Your task to perform on an android device: Open calendar and show me the second week of next month Image 0: 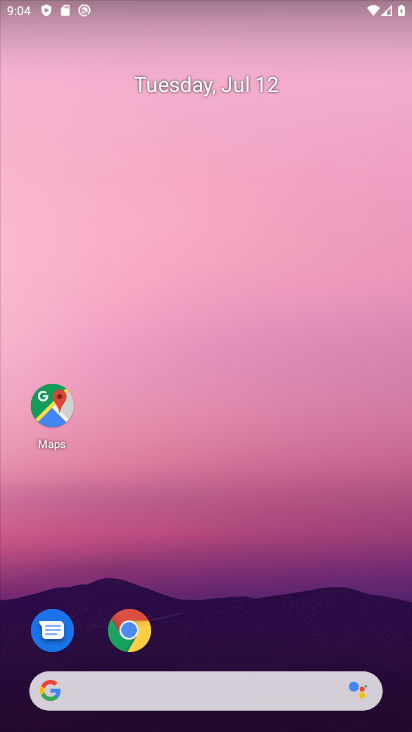
Step 0: drag from (253, 695) to (313, 201)
Your task to perform on an android device: Open calendar and show me the second week of next month Image 1: 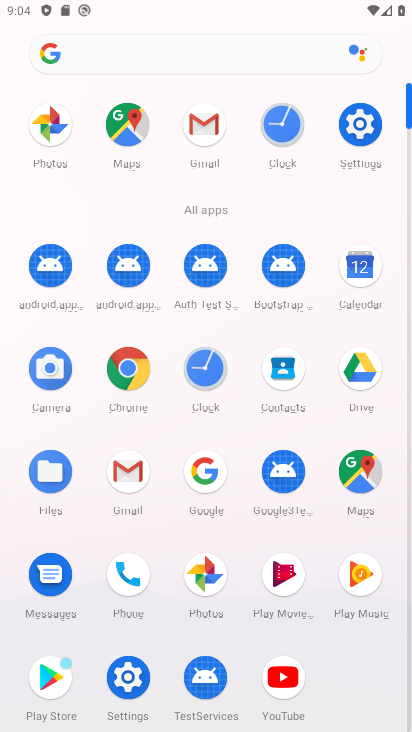
Step 1: click (357, 277)
Your task to perform on an android device: Open calendar and show me the second week of next month Image 2: 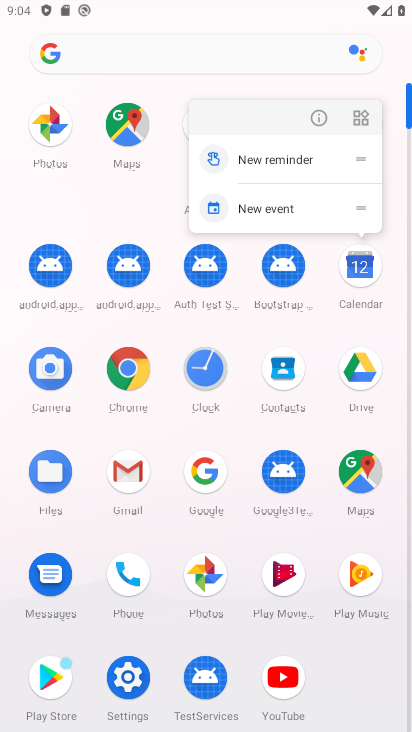
Step 2: click (357, 266)
Your task to perform on an android device: Open calendar and show me the second week of next month Image 3: 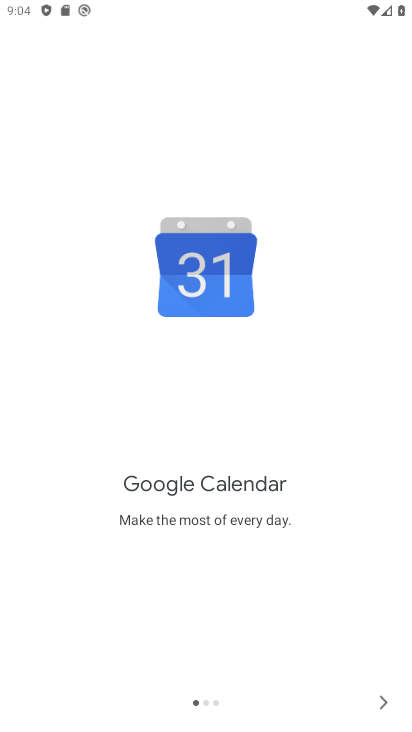
Step 3: click (381, 692)
Your task to perform on an android device: Open calendar and show me the second week of next month Image 4: 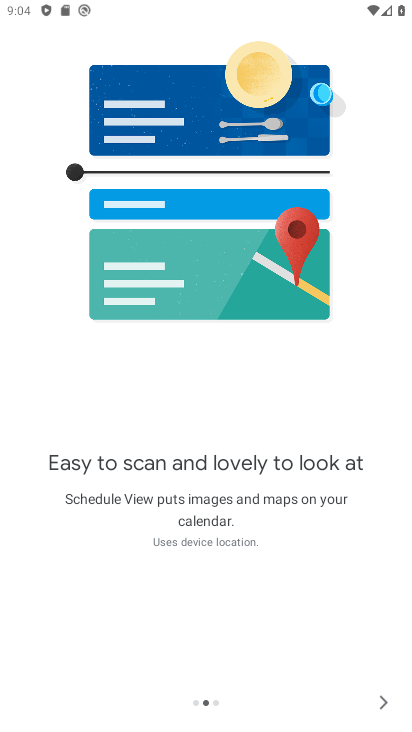
Step 4: click (382, 701)
Your task to perform on an android device: Open calendar and show me the second week of next month Image 5: 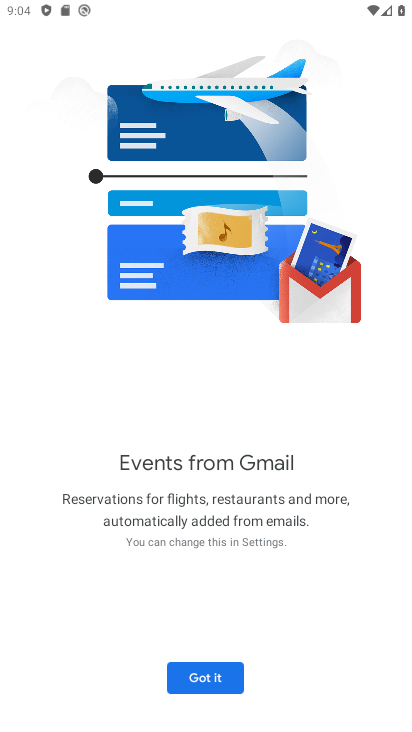
Step 5: click (203, 678)
Your task to perform on an android device: Open calendar and show me the second week of next month Image 6: 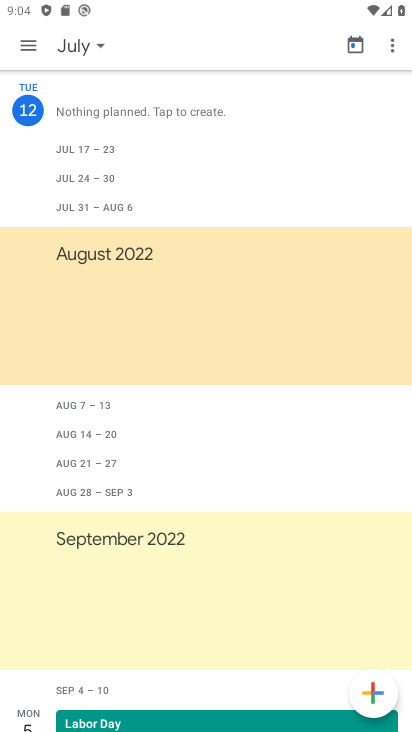
Step 6: click (76, 44)
Your task to perform on an android device: Open calendar and show me the second week of next month Image 7: 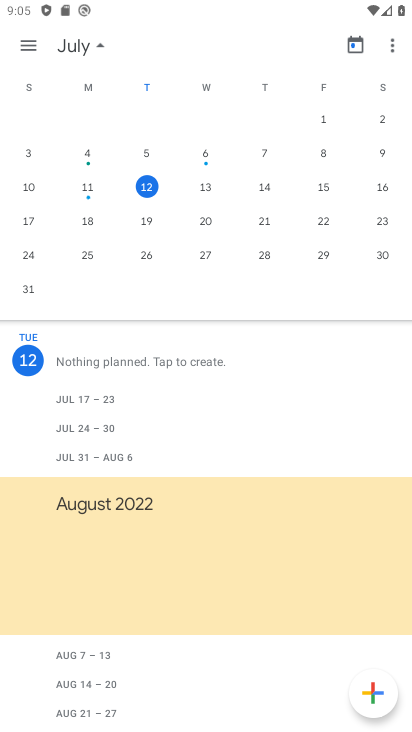
Step 7: drag from (286, 220) to (73, 205)
Your task to perform on an android device: Open calendar and show me the second week of next month Image 8: 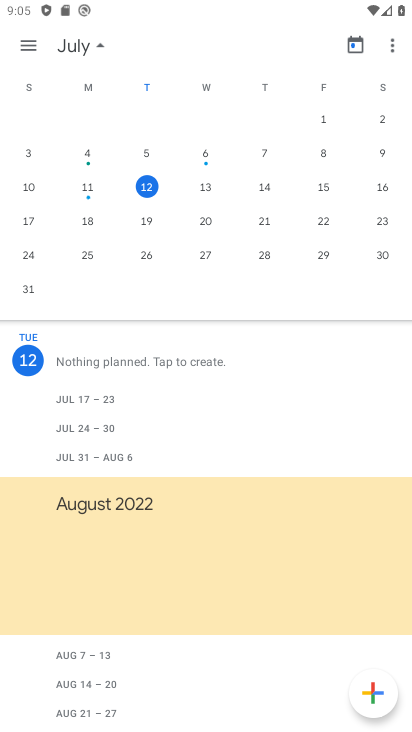
Step 8: drag from (342, 202) to (0, 223)
Your task to perform on an android device: Open calendar and show me the second week of next month Image 9: 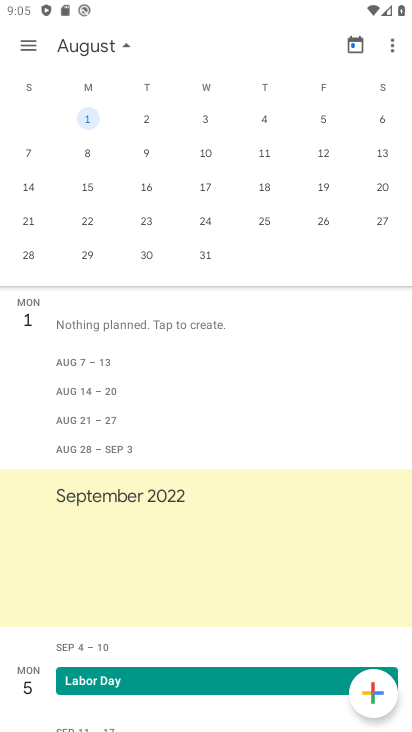
Step 9: click (28, 152)
Your task to perform on an android device: Open calendar and show me the second week of next month Image 10: 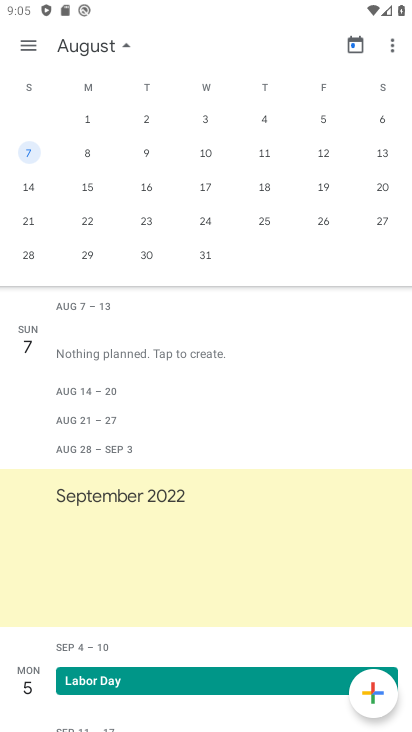
Step 10: click (28, 46)
Your task to perform on an android device: Open calendar and show me the second week of next month Image 11: 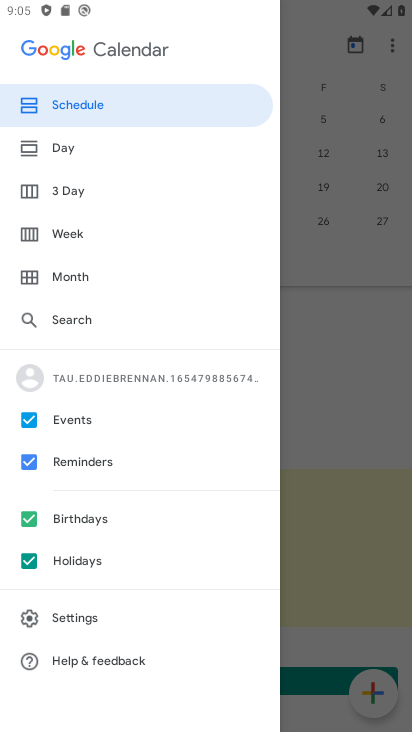
Step 11: click (74, 238)
Your task to perform on an android device: Open calendar and show me the second week of next month Image 12: 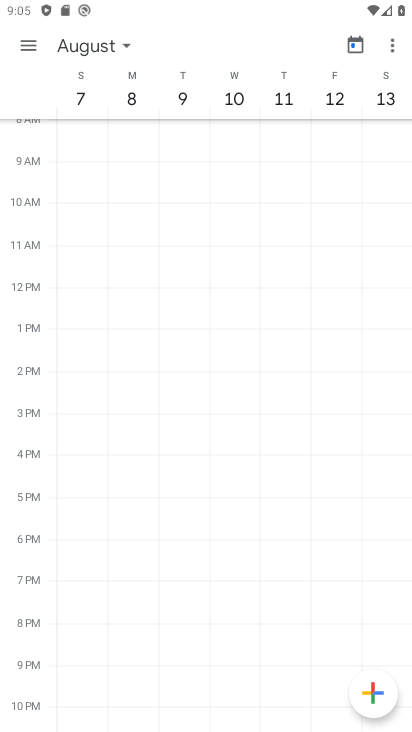
Step 12: task complete